Your task to perform on an android device: open a new tab in the chrome app Image 0: 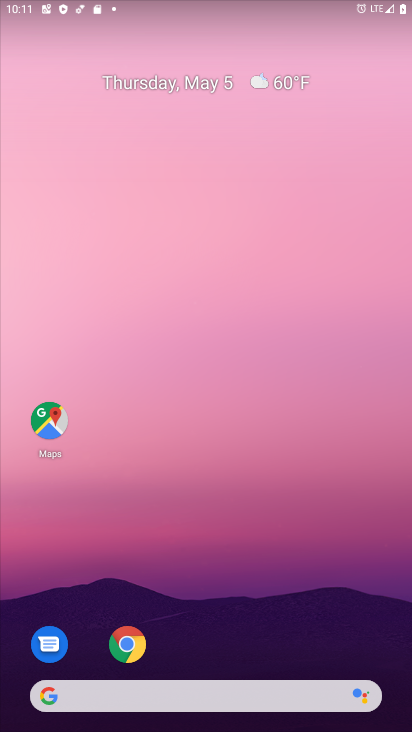
Step 0: click (141, 642)
Your task to perform on an android device: open a new tab in the chrome app Image 1: 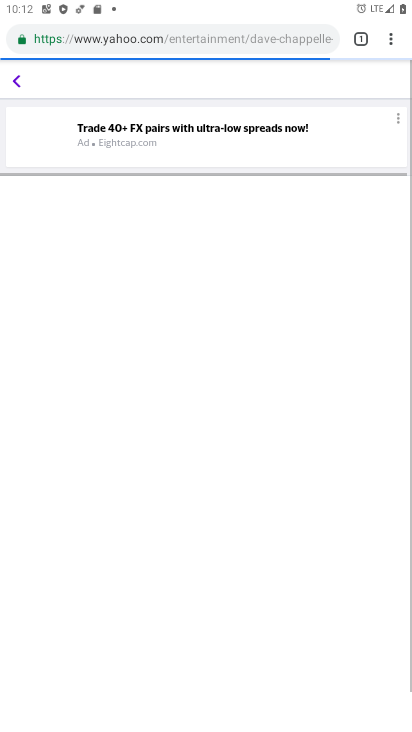
Step 1: task complete